Your task to perform on an android device: turn notification dots off Image 0: 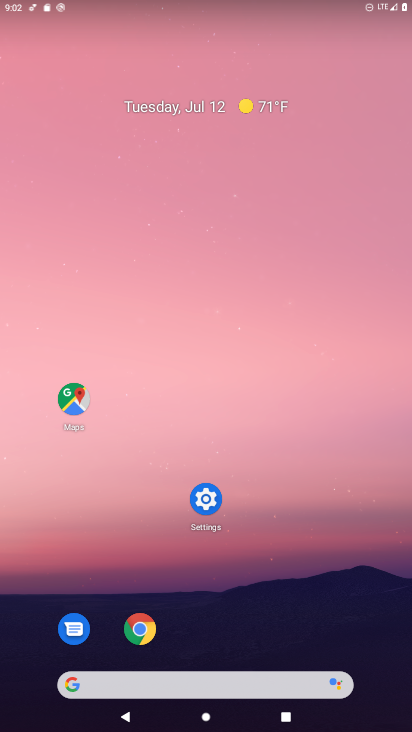
Step 0: click (209, 502)
Your task to perform on an android device: turn notification dots off Image 1: 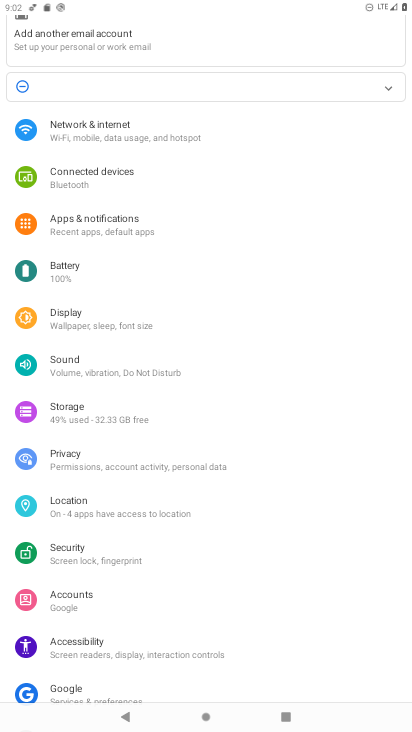
Step 1: click (103, 212)
Your task to perform on an android device: turn notification dots off Image 2: 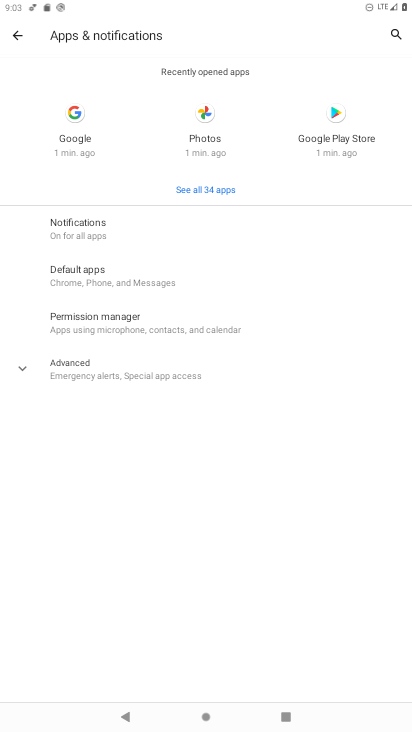
Step 2: task complete